Your task to perform on an android device: Search for Italian restaurants on Maps Image 0: 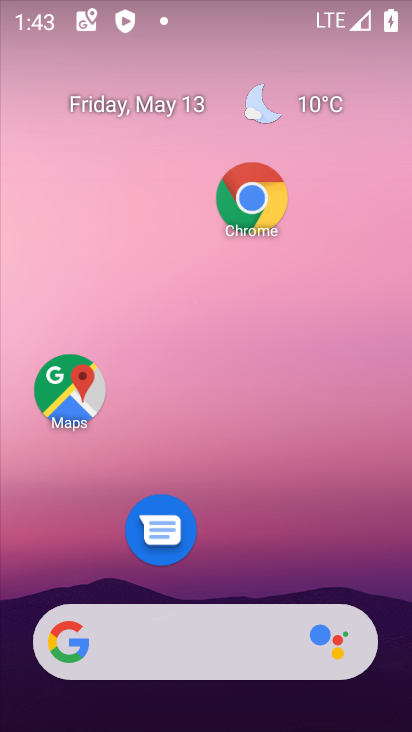
Step 0: click (147, 88)
Your task to perform on an android device: Search for Italian restaurants on Maps Image 1: 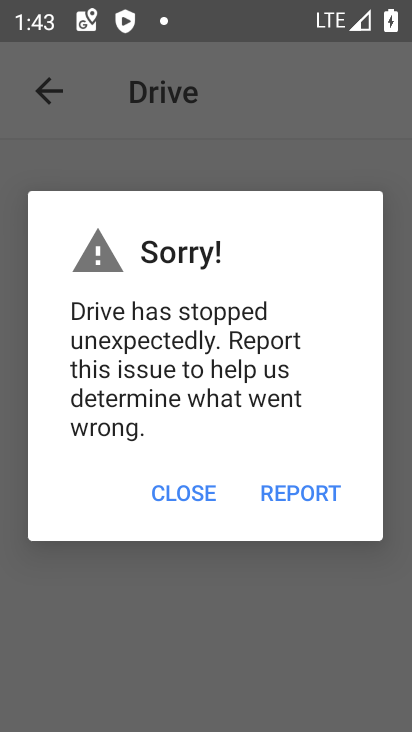
Step 1: press home button
Your task to perform on an android device: Search for Italian restaurants on Maps Image 2: 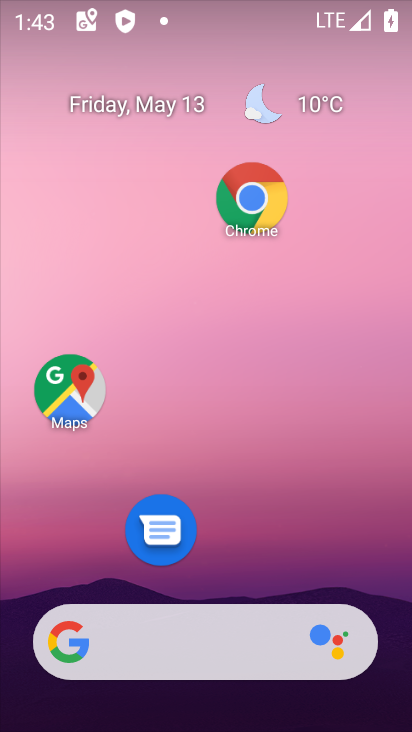
Step 2: click (81, 371)
Your task to perform on an android device: Search for Italian restaurants on Maps Image 3: 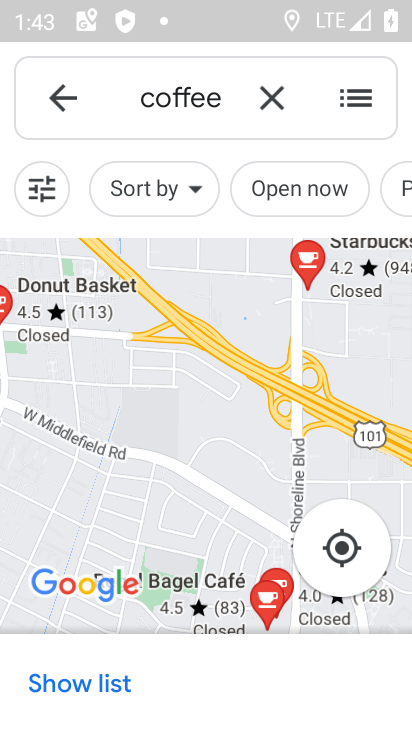
Step 3: click (268, 102)
Your task to perform on an android device: Search for Italian restaurants on Maps Image 4: 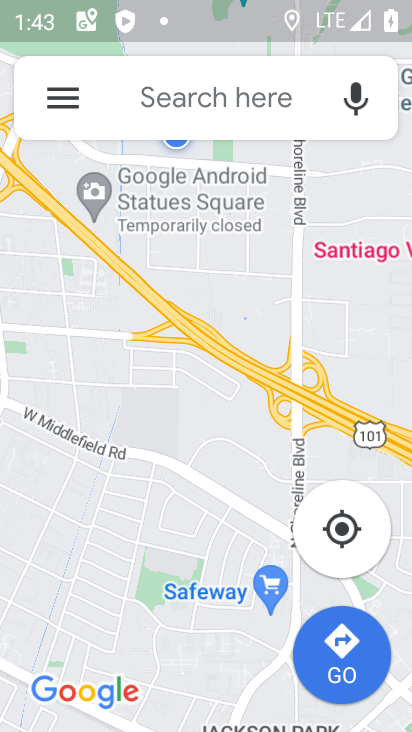
Step 4: click (246, 102)
Your task to perform on an android device: Search for Italian restaurants on Maps Image 5: 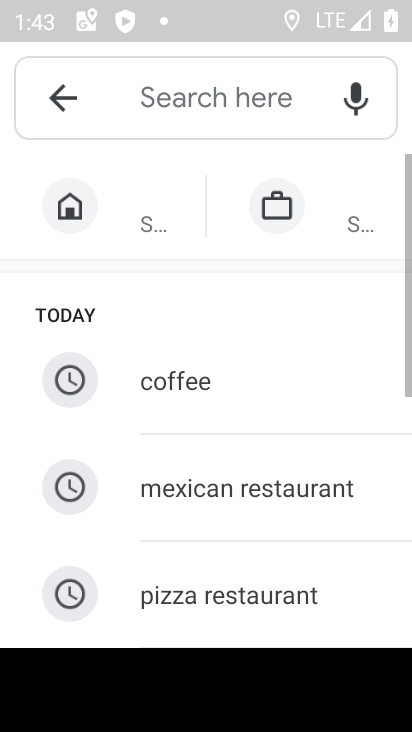
Step 5: drag from (308, 553) to (260, 225)
Your task to perform on an android device: Search for Italian restaurants on Maps Image 6: 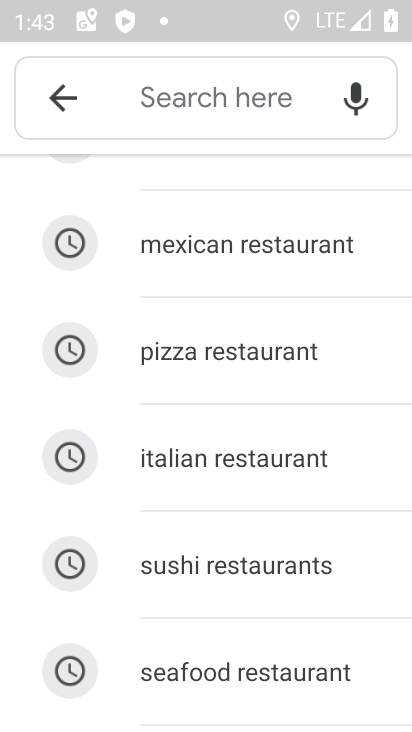
Step 6: click (208, 483)
Your task to perform on an android device: Search for Italian restaurants on Maps Image 7: 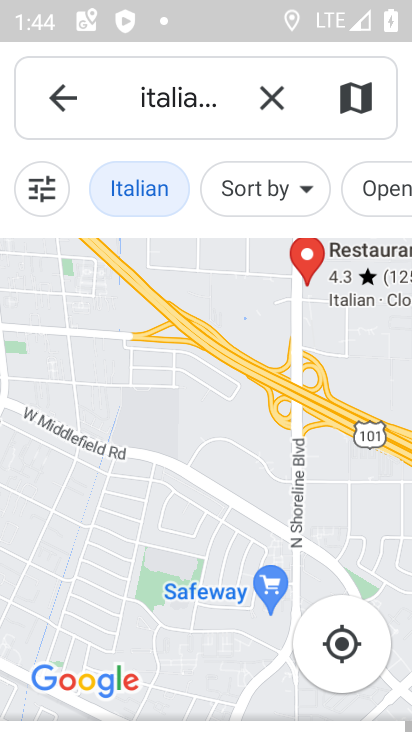
Step 7: task complete